Your task to perform on an android device: change the clock display to analog Image 0: 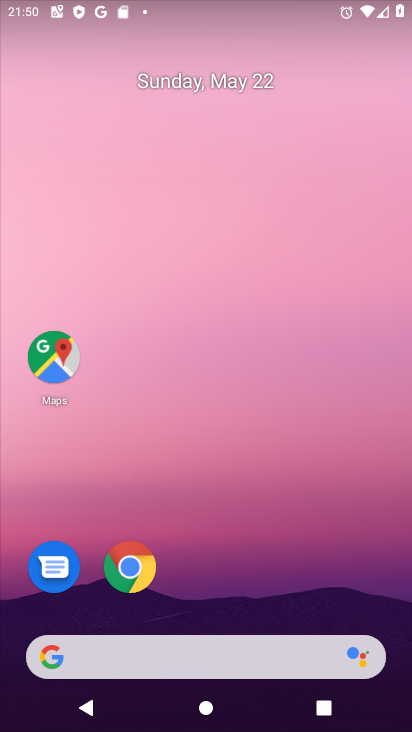
Step 0: drag from (214, 617) to (251, 14)
Your task to perform on an android device: change the clock display to analog Image 1: 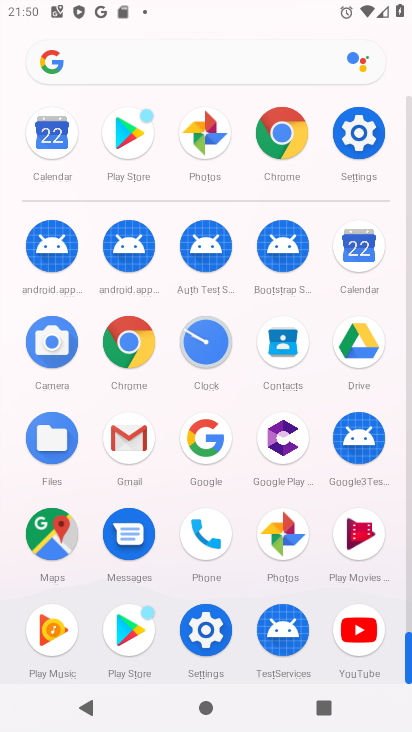
Step 1: click (205, 342)
Your task to perform on an android device: change the clock display to analog Image 2: 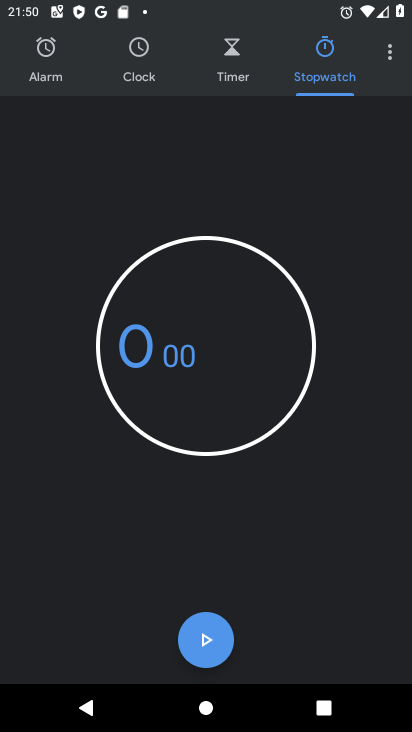
Step 2: click (385, 57)
Your task to perform on an android device: change the clock display to analog Image 3: 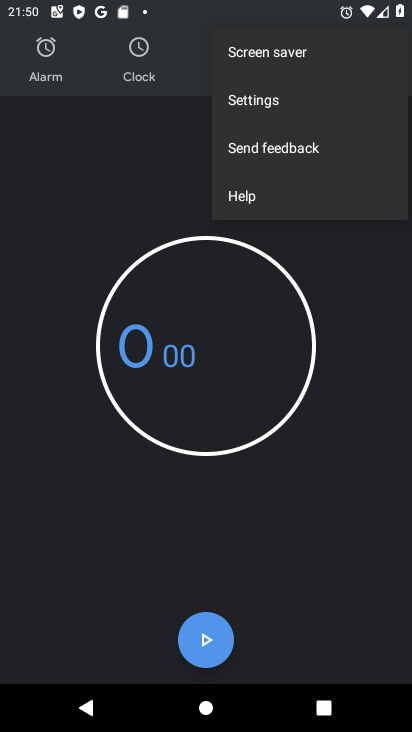
Step 3: click (269, 102)
Your task to perform on an android device: change the clock display to analog Image 4: 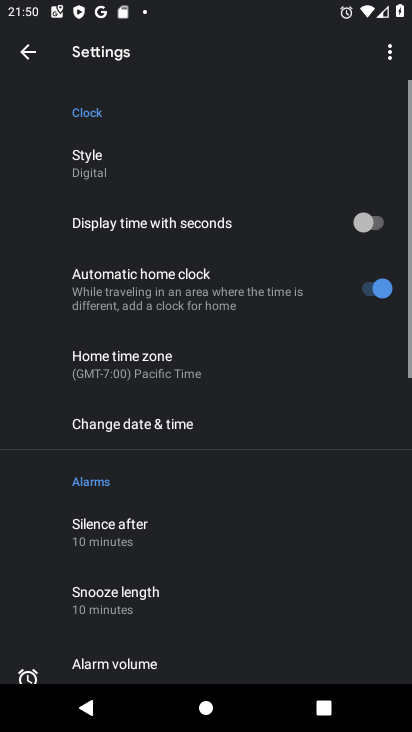
Step 4: click (92, 165)
Your task to perform on an android device: change the clock display to analog Image 5: 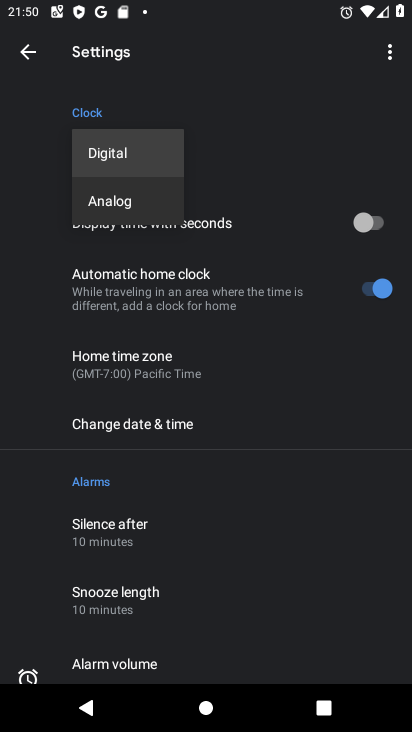
Step 5: click (120, 200)
Your task to perform on an android device: change the clock display to analog Image 6: 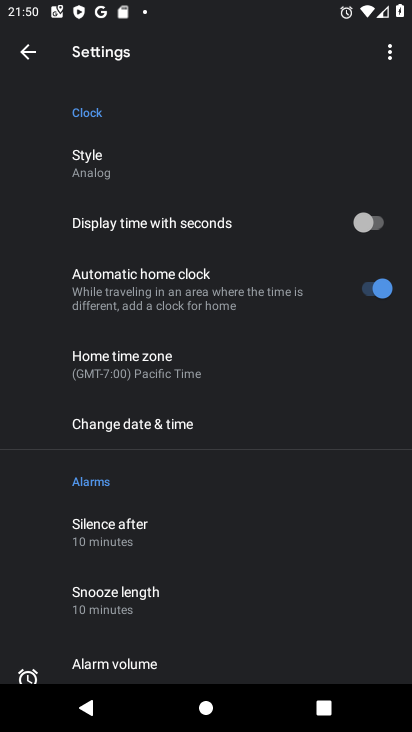
Step 6: task complete